Your task to perform on an android device: What's the weather? Image 0: 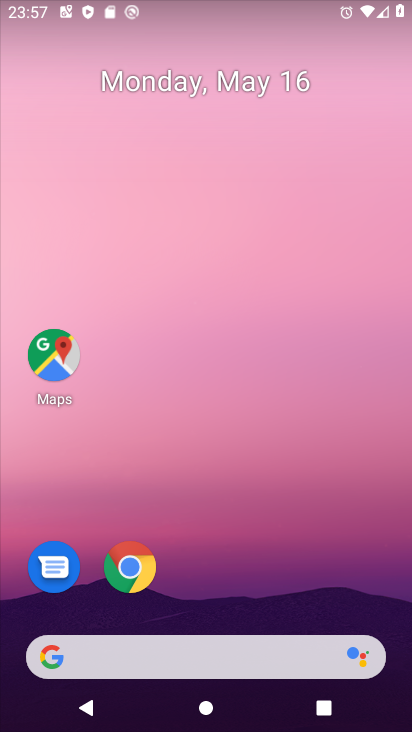
Step 0: click (241, 646)
Your task to perform on an android device: What's the weather? Image 1: 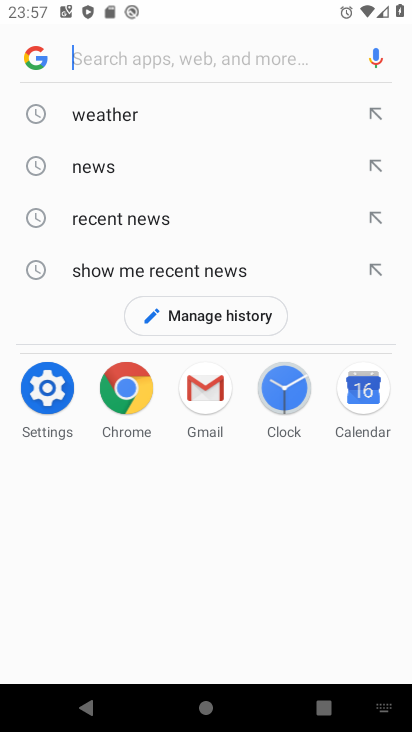
Step 1: click (102, 114)
Your task to perform on an android device: What's the weather? Image 2: 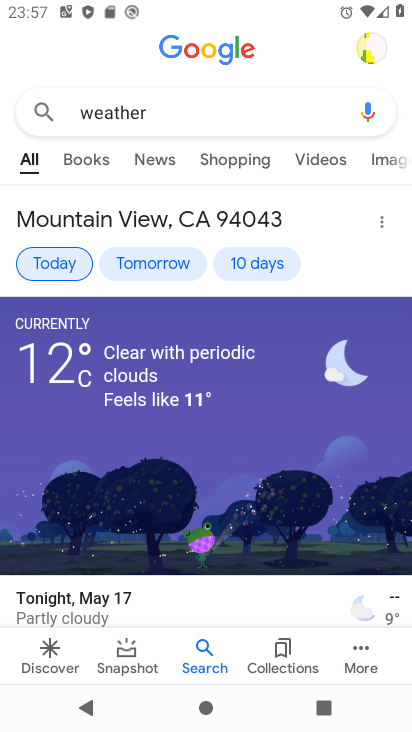
Step 2: task complete